Your task to perform on an android device: Open Reddit.com Image 0: 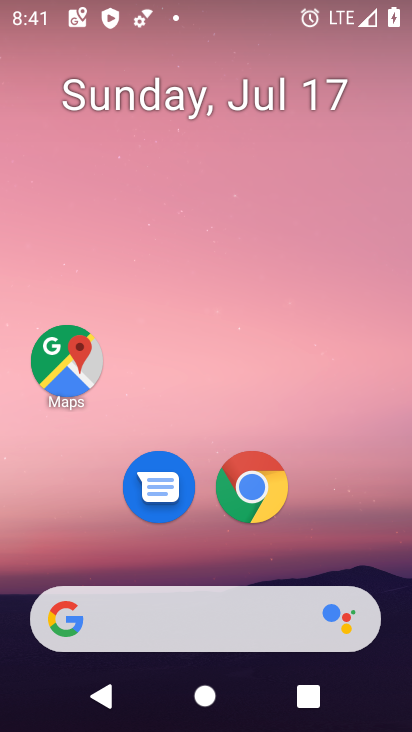
Step 0: click (281, 505)
Your task to perform on an android device: Open Reddit.com Image 1: 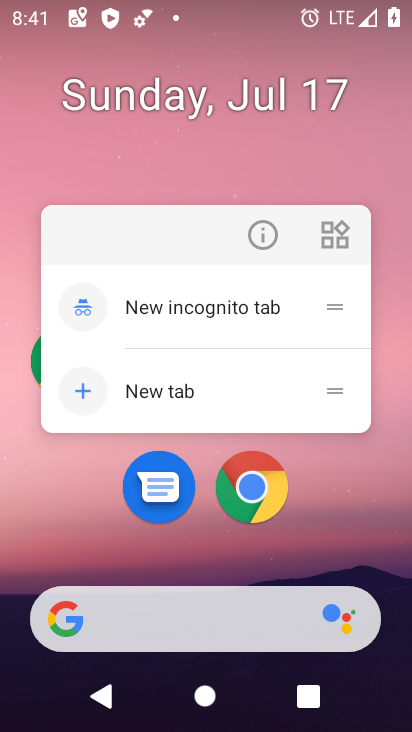
Step 1: click (234, 449)
Your task to perform on an android device: Open Reddit.com Image 2: 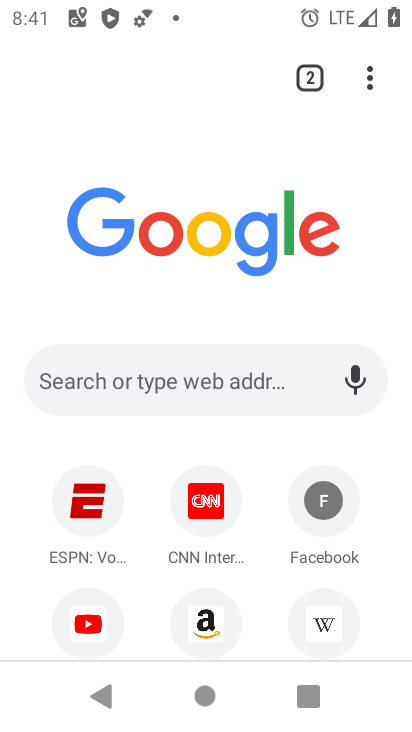
Step 2: click (173, 392)
Your task to perform on an android device: Open Reddit.com Image 3: 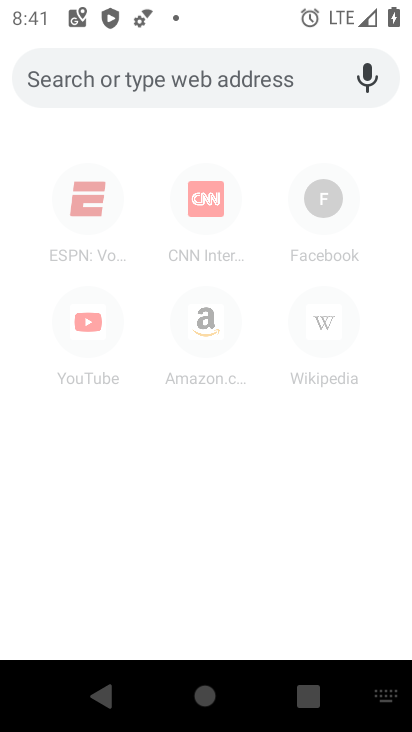
Step 3: type "reddit.com"
Your task to perform on an android device: Open Reddit.com Image 4: 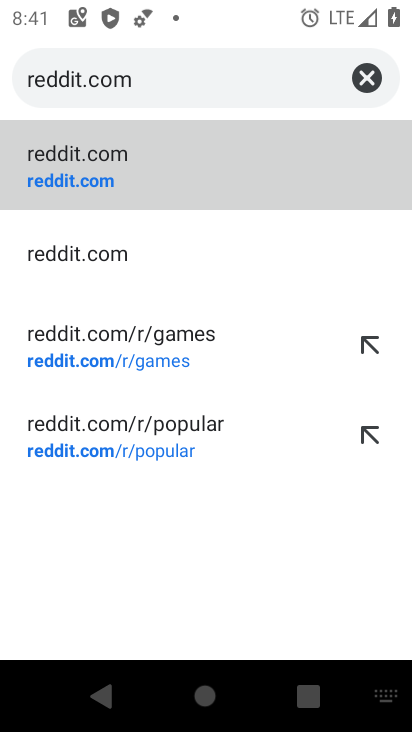
Step 4: click (104, 177)
Your task to perform on an android device: Open Reddit.com Image 5: 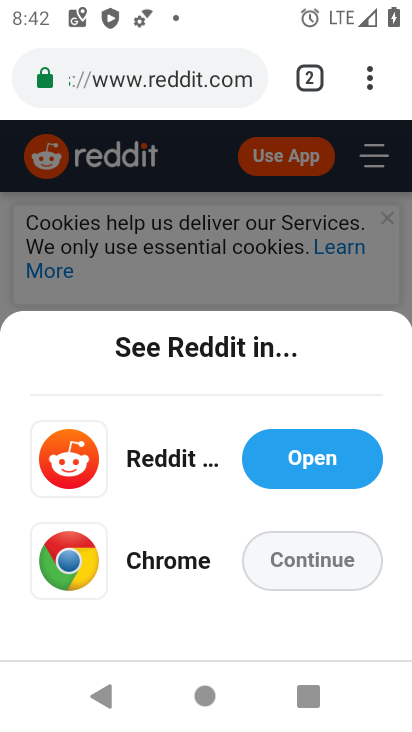
Step 5: task complete